Your task to perform on an android device: Open Yahoo.com Image 0: 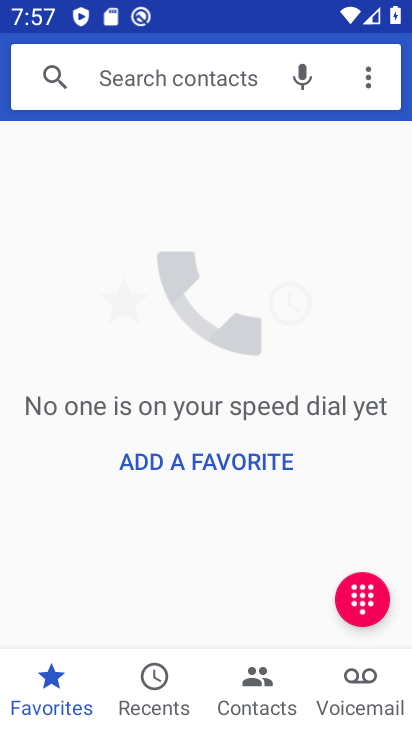
Step 0: press home button
Your task to perform on an android device: Open Yahoo.com Image 1: 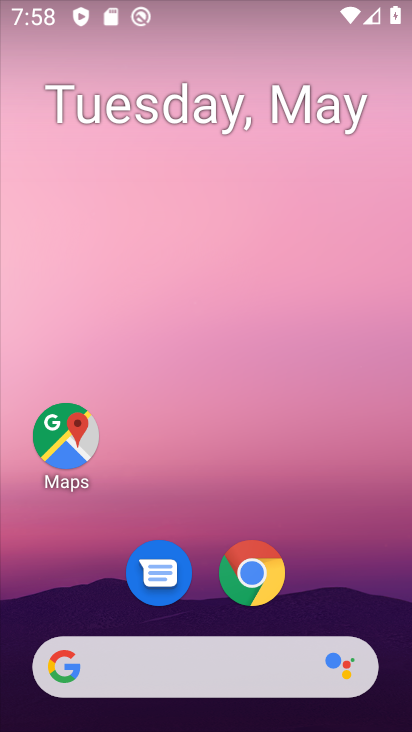
Step 1: drag from (390, 673) to (373, 169)
Your task to perform on an android device: Open Yahoo.com Image 2: 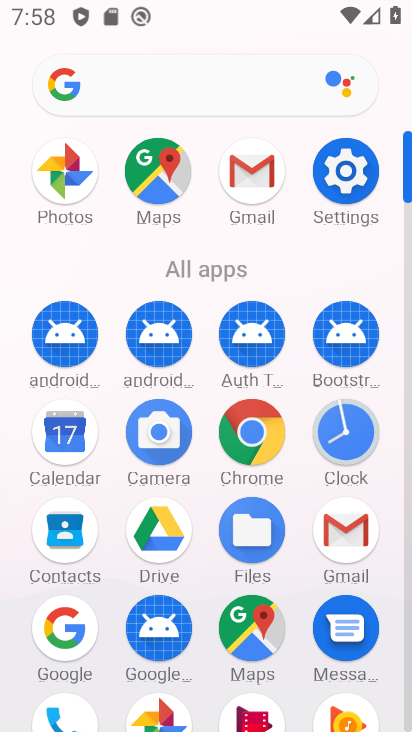
Step 2: click (259, 423)
Your task to perform on an android device: Open Yahoo.com Image 3: 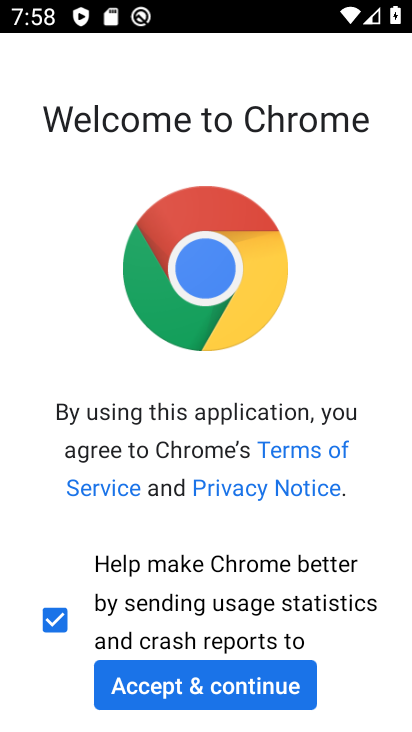
Step 3: click (243, 686)
Your task to perform on an android device: Open Yahoo.com Image 4: 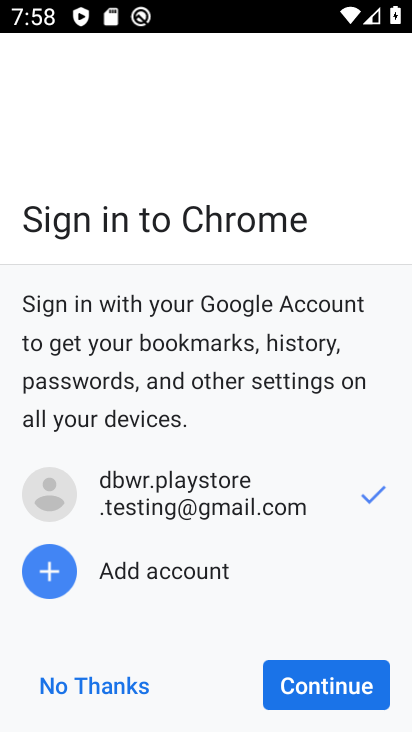
Step 4: click (243, 685)
Your task to perform on an android device: Open Yahoo.com Image 5: 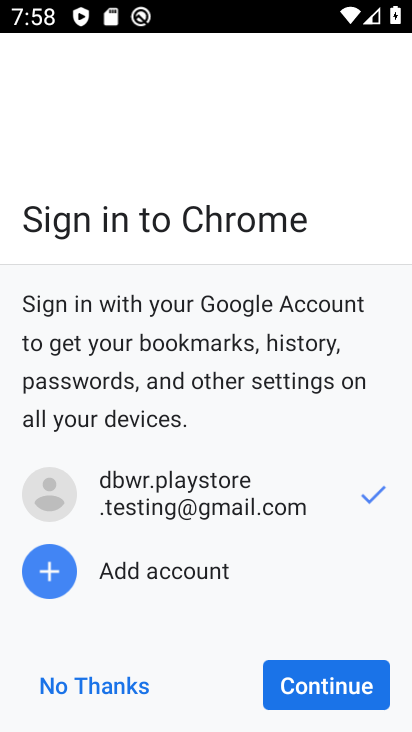
Step 5: click (302, 687)
Your task to perform on an android device: Open Yahoo.com Image 6: 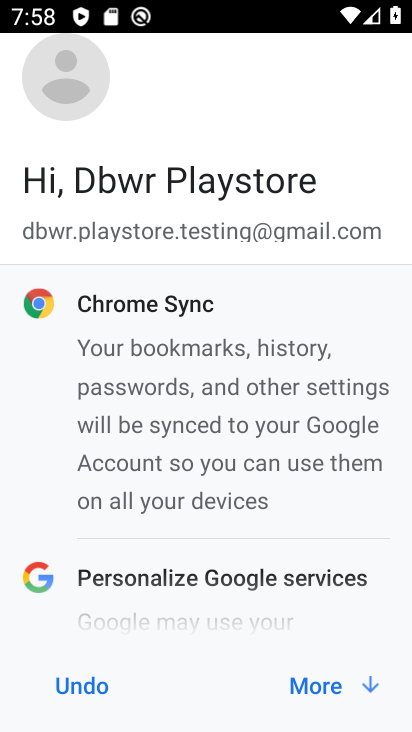
Step 6: click (330, 683)
Your task to perform on an android device: Open Yahoo.com Image 7: 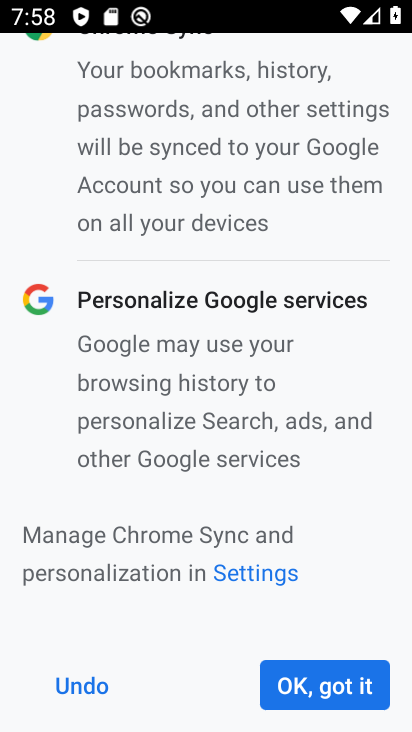
Step 7: click (330, 683)
Your task to perform on an android device: Open Yahoo.com Image 8: 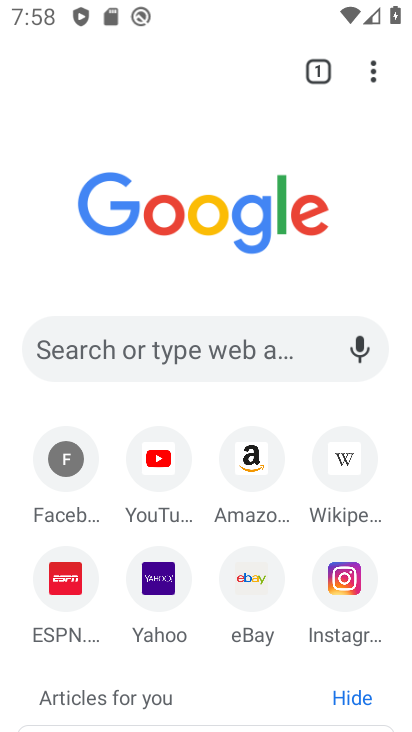
Step 8: click (187, 344)
Your task to perform on an android device: Open Yahoo.com Image 9: 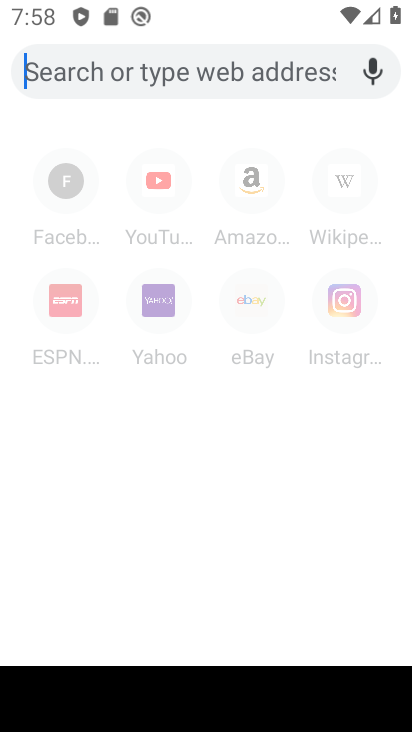
Step 9: type "Yahoo.com"
Your task to perform on an android device: Open Yahoo.com Image 10: 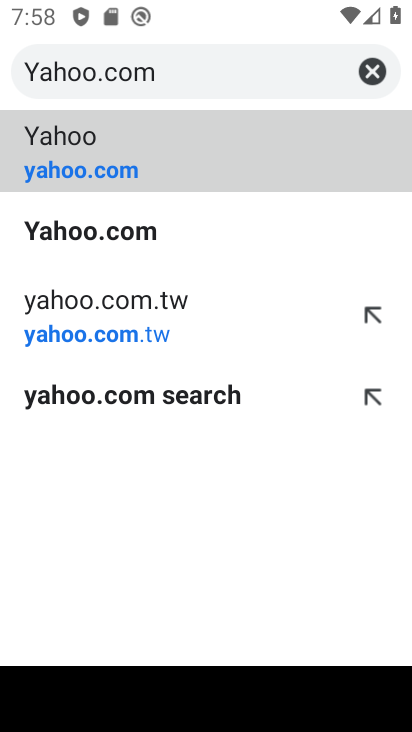
Step 10: click (92, 225)
Your task to perform on an android device: Open Yahoo.com Image 11: 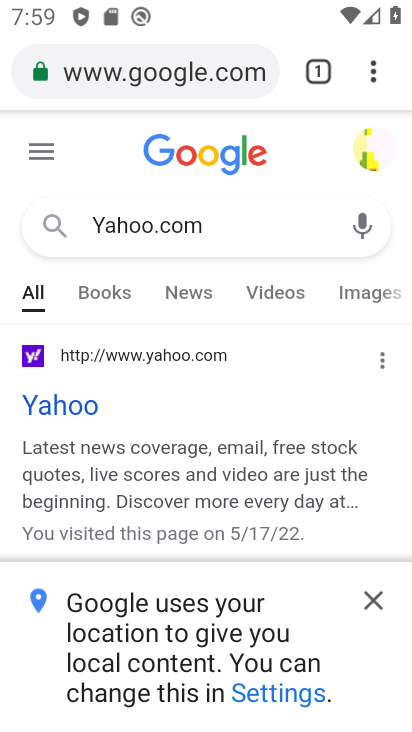
Step 11: task complete